Your task to perform on an android device: Show me popular videos on Youtube Image 0: 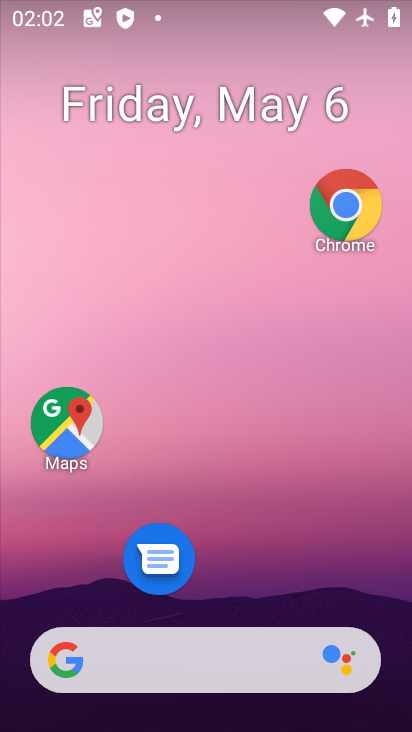
Step 0: drag from (151, 679) to (308, 135)
Your task to perform on an android device: Show me popular videos on Youtube Image 1: 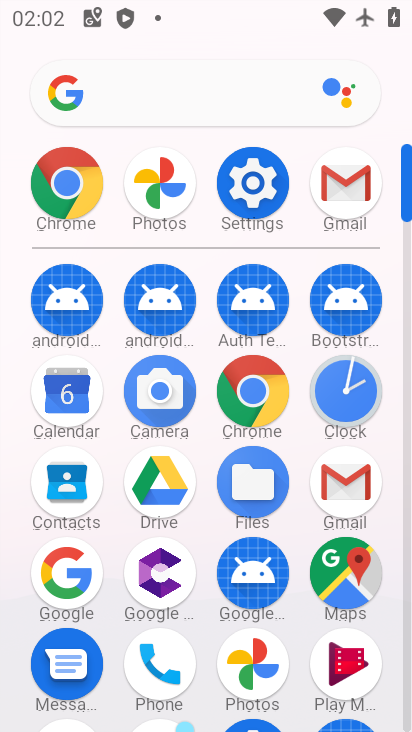
Step 1: drag from (197, 680) to (316, 209)
Your task to perform on an android device: Show me popular videos on Youtube Image 2: 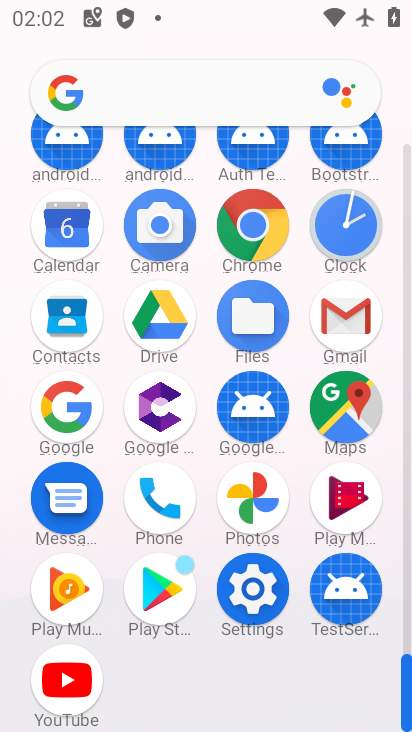
Step 2: click (83, 674)
Your task to perform on an android device: Show me popular videos on Youtube Image 3: 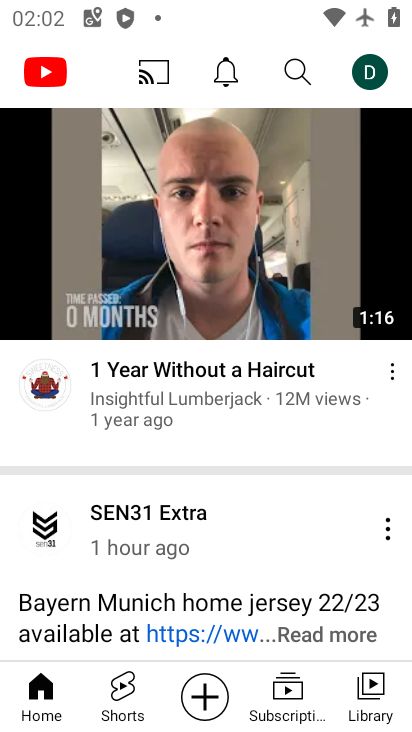
Step 3: task complete